Your task to perform on an android device: change notification settings in the gmail app Image 0: 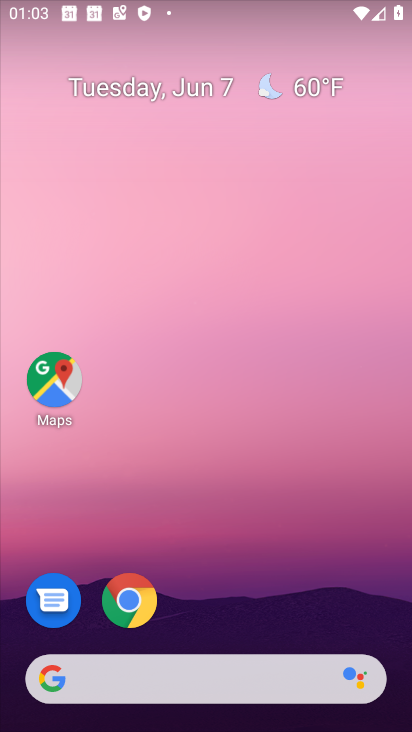
Step 0: drag from (220, 727) to (220, 186)
Your task to perform on an android device: change notification settings in the gmail app Image 1: 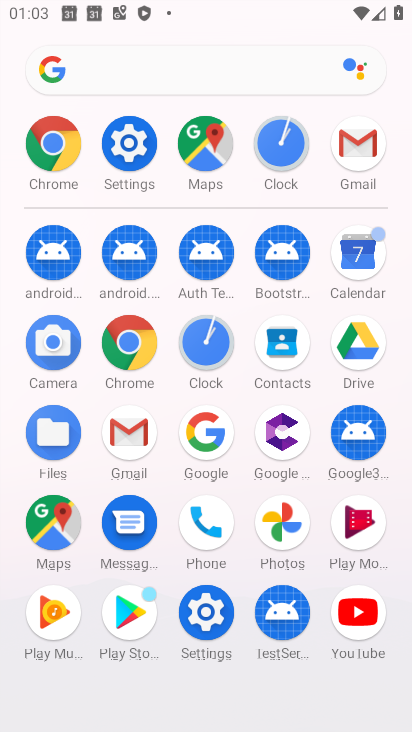
Step 1: click (119, 438)
Your task to perform on an android device: change notification settings in the gmail app Image 2: 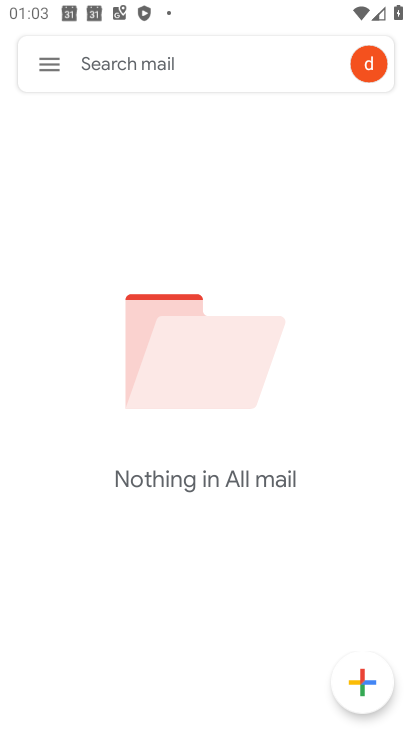
Step 2: click (45, 68)
Your task to perform on an android device: change notification settings in the gmail app Image 3: 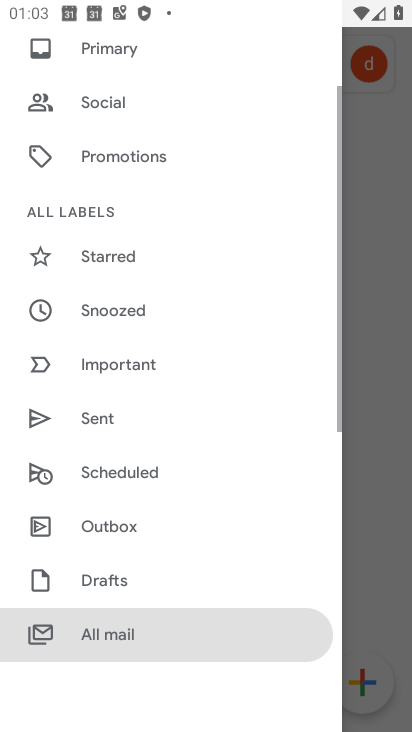
Step 3: drag from (143, 662) to (147, 339)
Your task to perform on an android device: change notification settings in the gmail app Image 4: 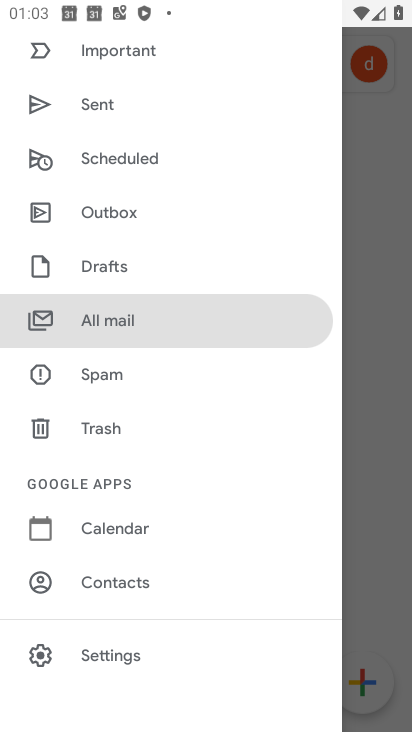
Step 4: click (116, 659)
Your task to perform on an android device: change notification settings in the gmail app Image 5: 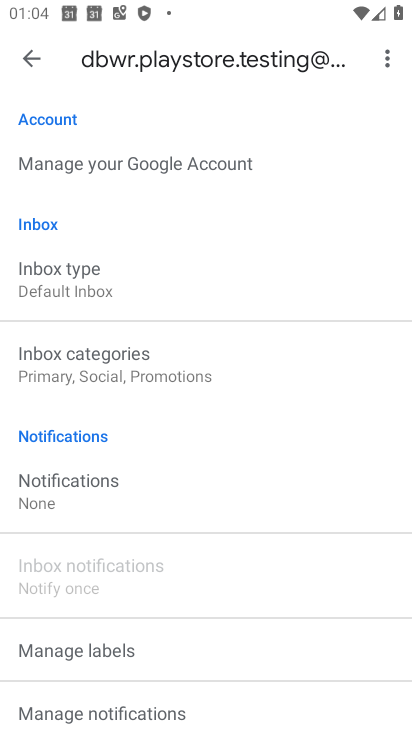
Step 5: click (67, 479)
Your task to perform on an android device: change notification settings in the gmail app Image 6: 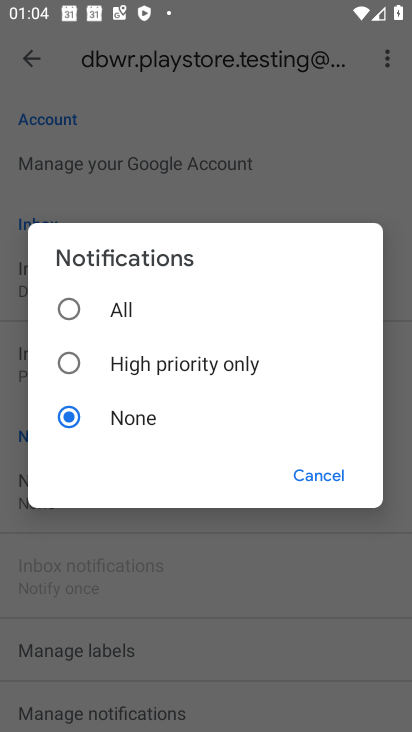
Step 6: click (74, 303)
Your task to perform on an android device: change notification settings in the gmail app Image 7: 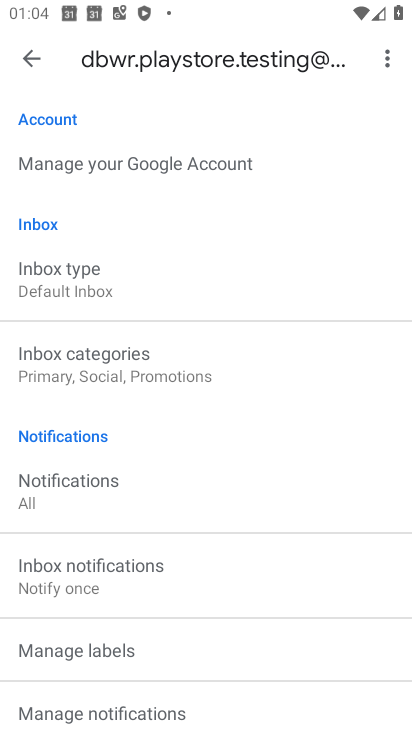
Step 7: task complete